Your task to perform on an android device: Go to Reddit.com Image 0: 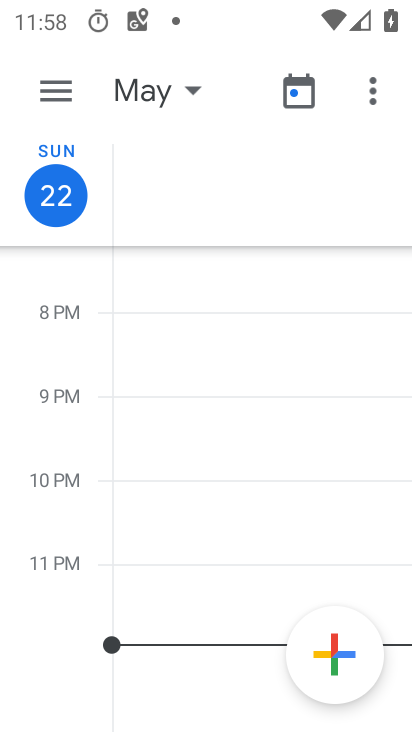
Step 0: press home button
Your task to perform on an android device: Go to Reddit.com Image 1: 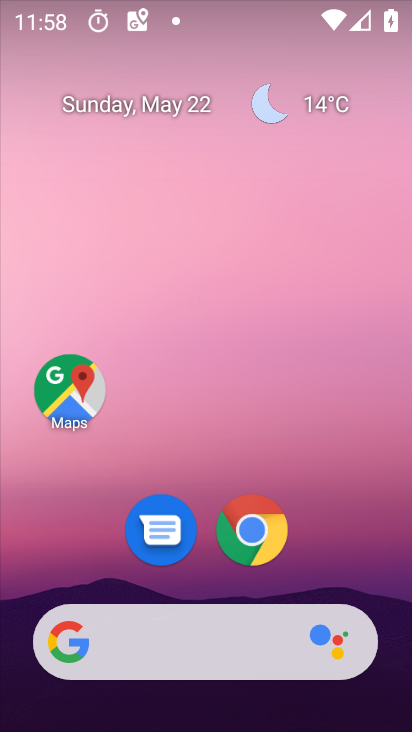
Step 1: click (242, 521)
Your task to perform on an android device: Go to Reddit.com Image 2: 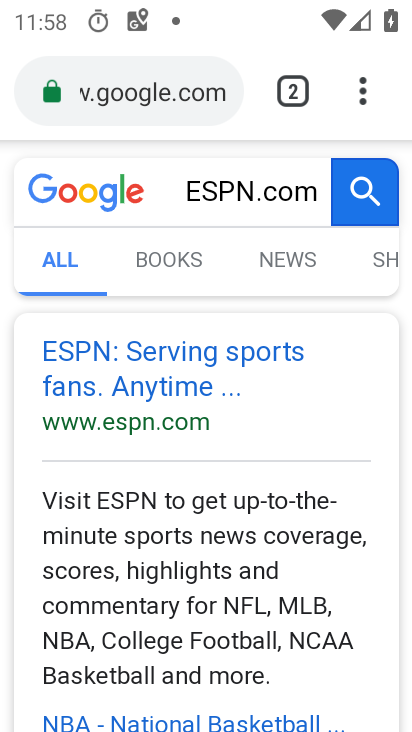
Step 2: click (235, 87)
Your task to perform on an android device: Go to Reddit.com Image 3: 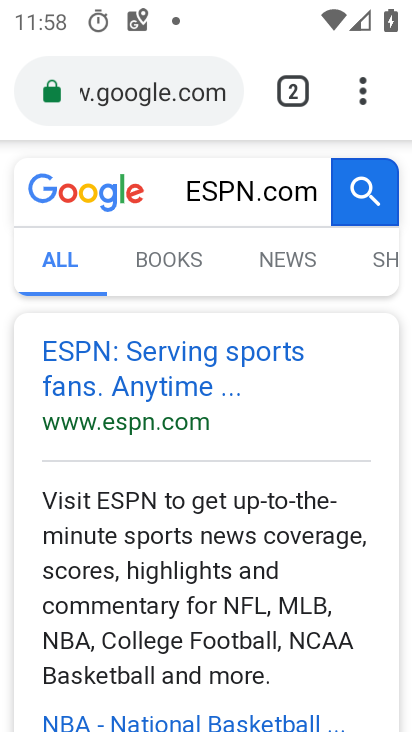
Step 3: click (228, 91)
Your task to perform on an android device: Go to Reddit.com Image 4: 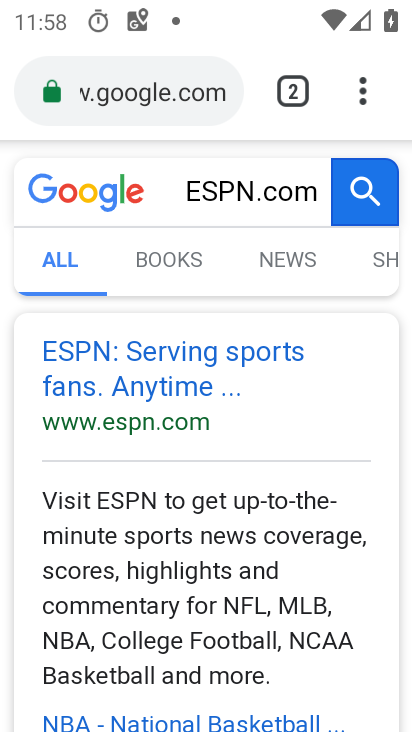
Step 4: click (228, 89)
Your task to perform on an android device: Go to Reddit.com Image 5: 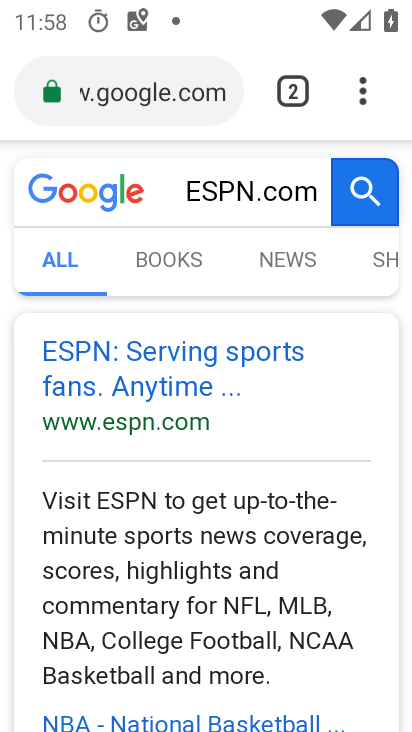
Step 5: click (219, 90)
Your task to perform on an android device: Go to Reddit.com Image 6: 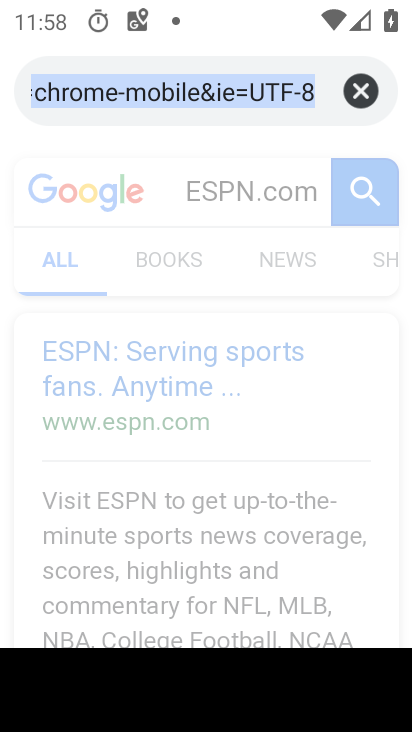
Step 6: click (353, 87)
Your task to perform on an android device: Go to Reddit.com Image 7: 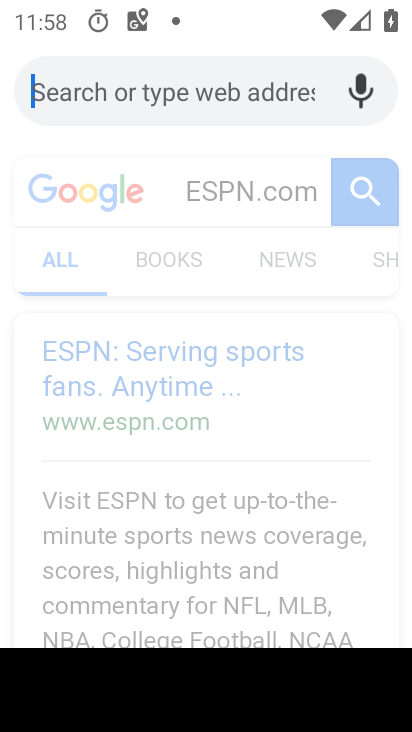
Step 7: type "Reddit.com"
Your task to perform on an android device: Go to Reddit.com Image 8: 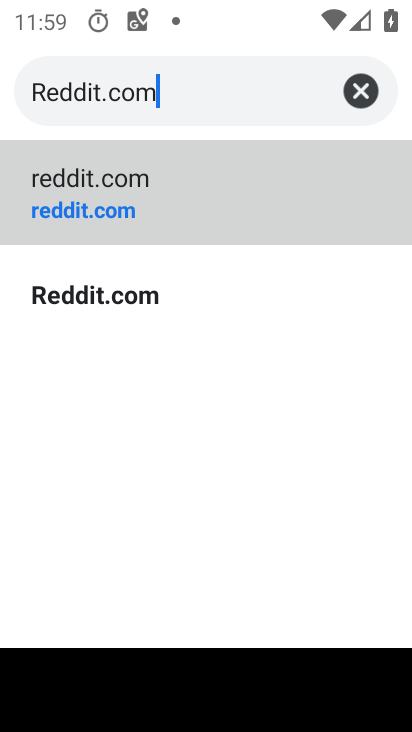
Step 8: click (125, 288)
Your task to perform on an android device: Go to Reddit.com Image 9: 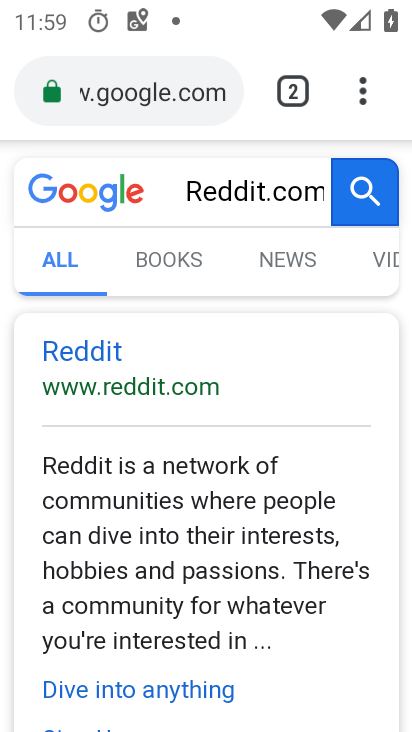
Step 9: task complete